Your task to perform on an android device: change timer sound Image 0: 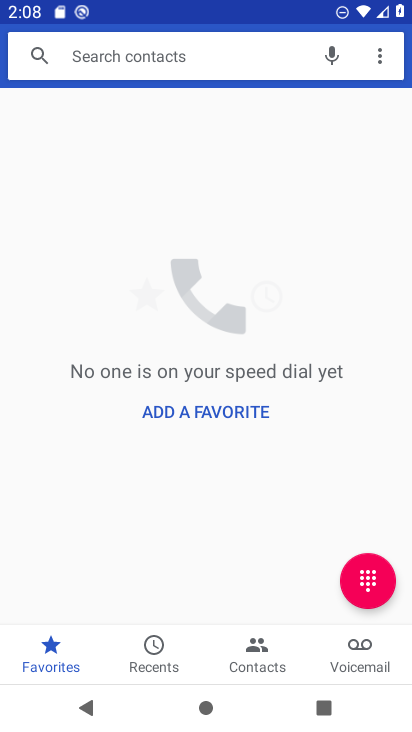
Step 0: press home button
Your task to perform on an android device: change timer sound Image 1: 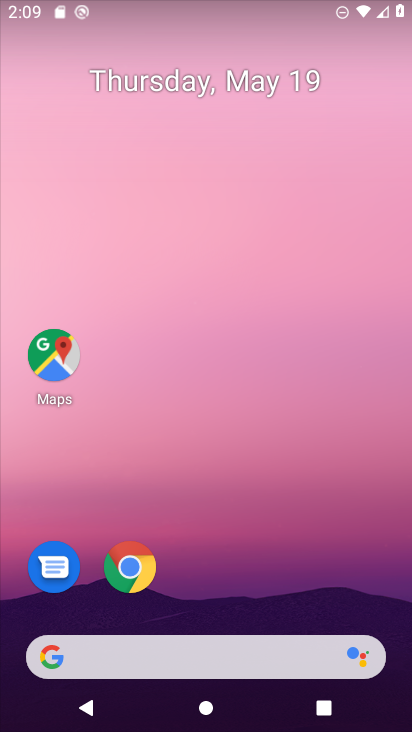
Step 1: drag from (229, 555) to (264, 20)
Your task to perform on an android device: change timer sound Image 2: 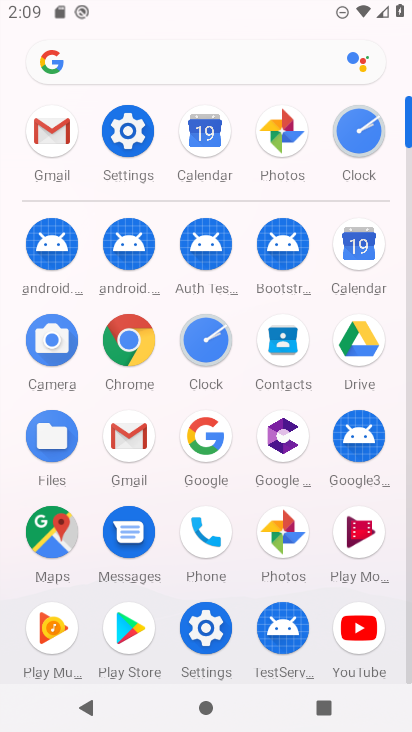
Step 2: click (125, 123)
Your task to perform on an android device: change timer sound Image 3: 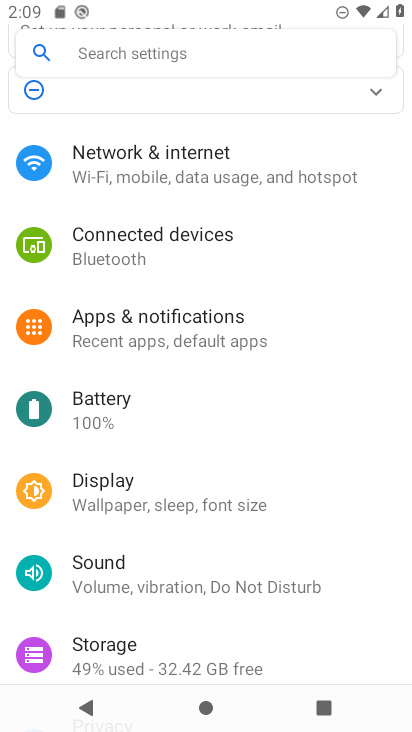
Step 3: press home button
Your task to perform on an android device: change timer sound Image 4: 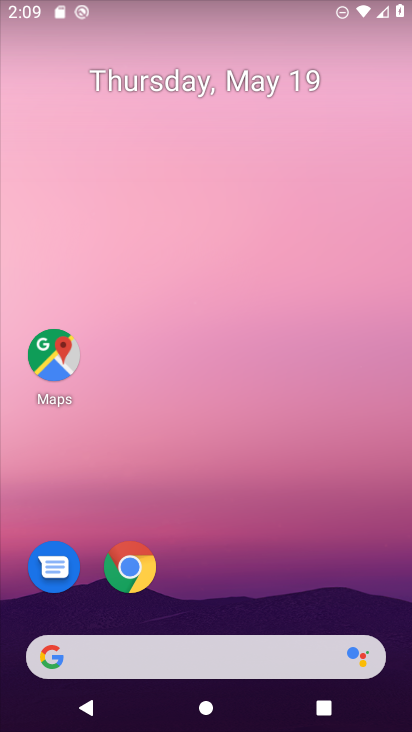
Step 4: drag from (249, 537) to (239, 80)
Your task to perform on an android device: change timer sound Image 5: 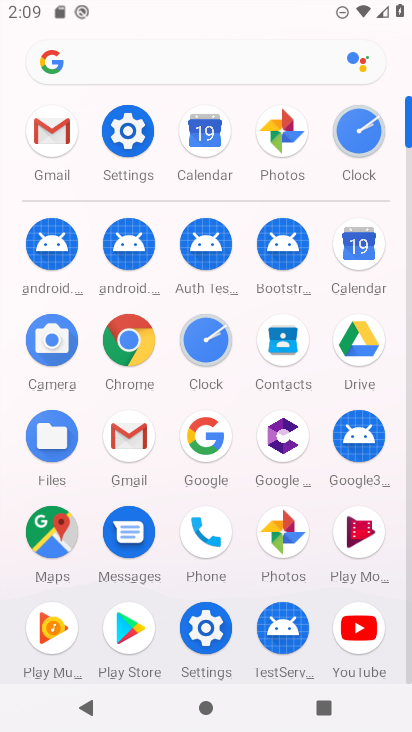
Step 5: click (362, 142)
Your task to perform on an android device: change timer sound Image 6: 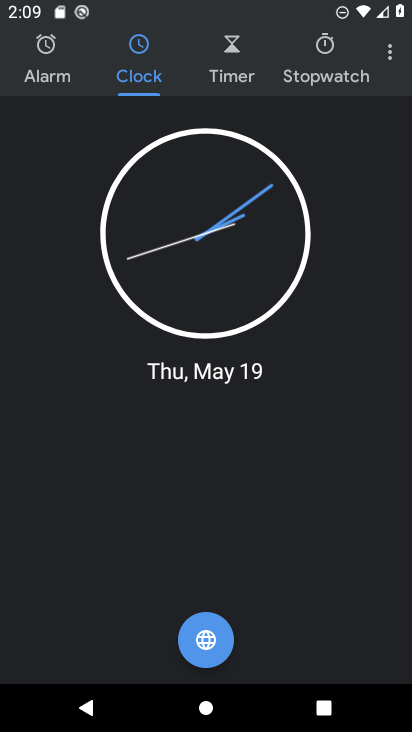
Step 6: click (383, 54)
Your task to perform on an android device: change timer sound Image 7: 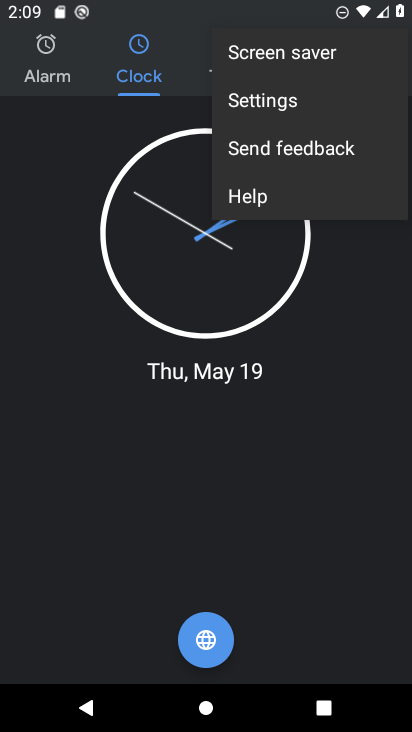
Step 7: click (314, 104)
Your task to perform on an android device: change timer sound Image 8: 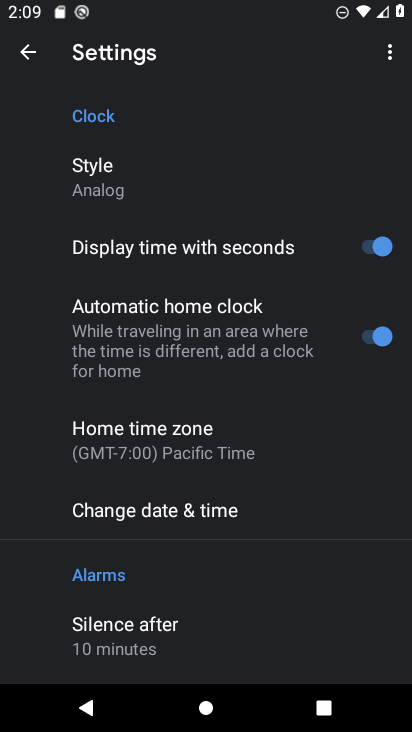
Step 8: drag from (205, 573) to (258, 142)
Your task to perform on an android device: change timer sound Image 9: 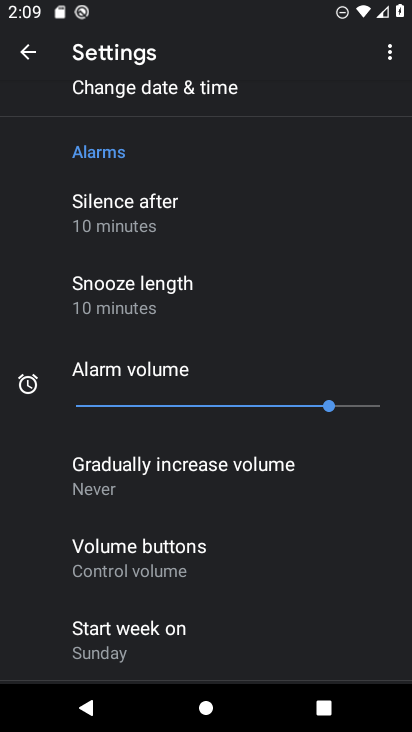
Step 9: drag from (257, 563) to (272, 233)
Your task to perform on an android device: change timer sound Image 10: 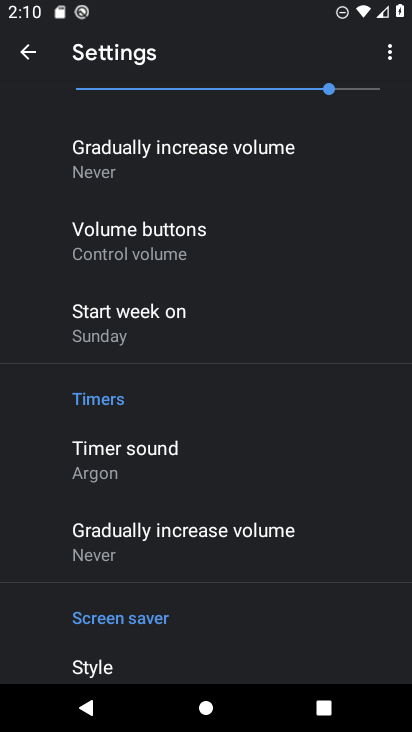
Step 10: click (202, 473)
Your task to perform on an android device: change timer sound Image 11: 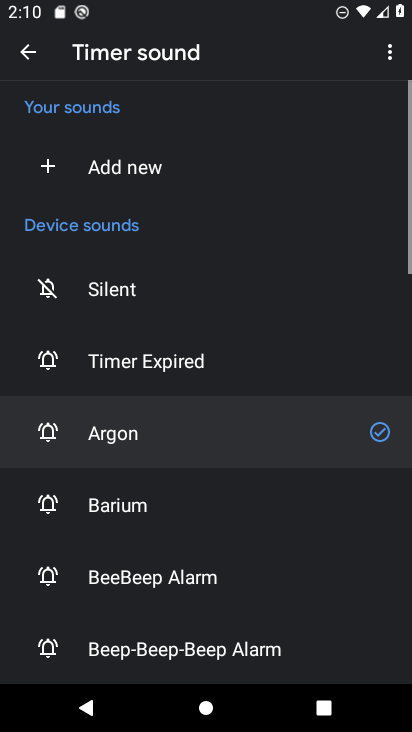
Step 11: click (185, 515)
Your task to perform on an android device: change timer sound Image 12: 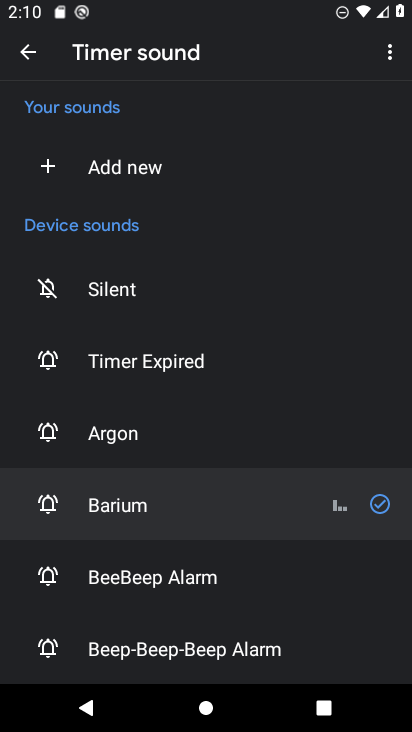
Step 12: task complete